Your task to perform on an android device: Turn on the flashlight Image 0: 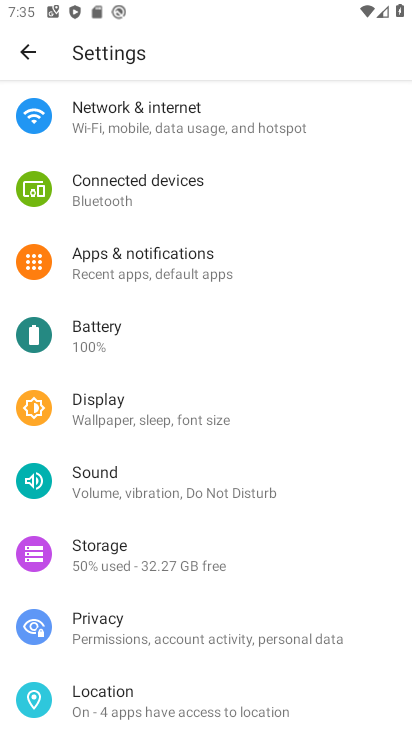
Step 0: click (76, 396)
Your task to perform on an android device: Turn on the flashlight Image 1: 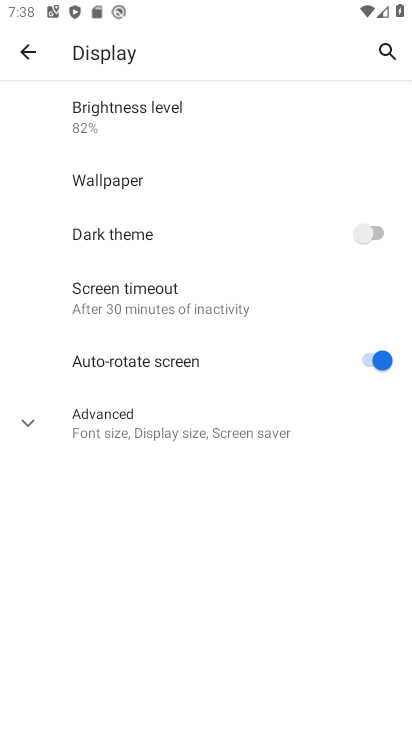
Step 1: click (125, 186)
Your task to perform on an android device: Turn on the flashlight Image 2: 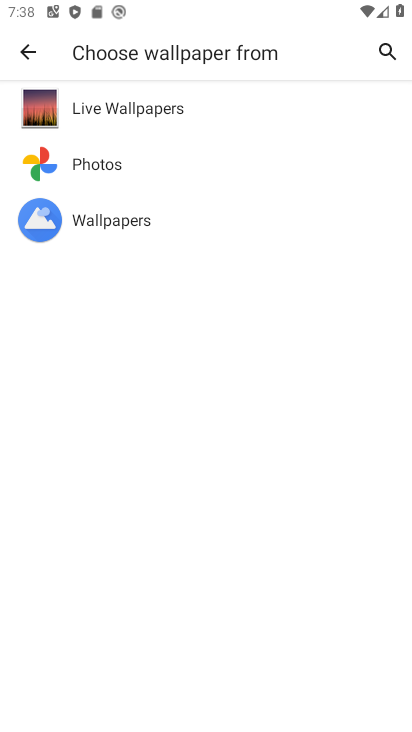
Step 2: task complete